Your task to perform on an android device: open a bookmark in the chrome app Image 0: 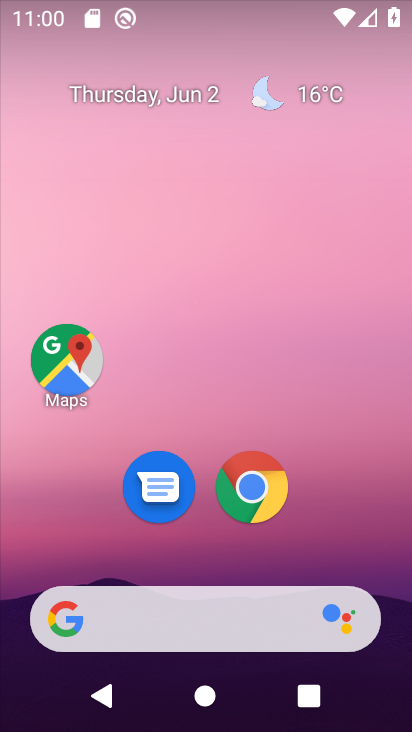
Step 0: click (258, 489)
Your task to perform on an android device: open a bookmark in the chrome app Image 1: 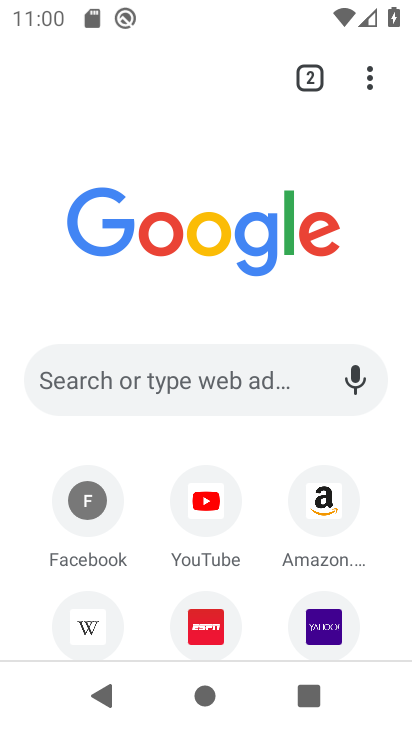
Step 1: click (370, 80)
Your task to perform on an android device: open a bookmark in the chrome app Image 2: 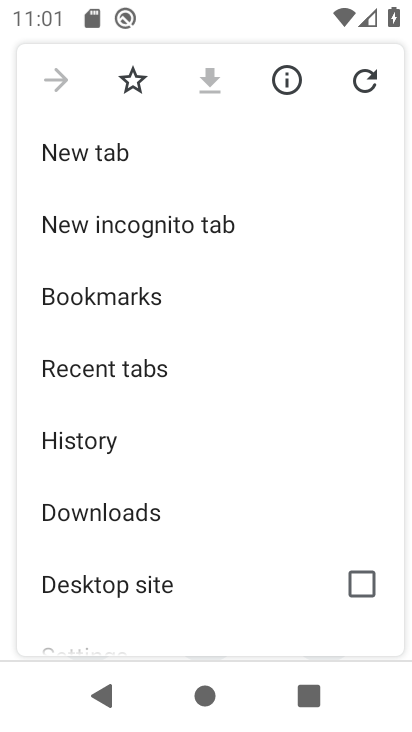
Step 2: click (126, 301)
Your task to perform on an android device: open a bookmark in the chrome app Image 3: 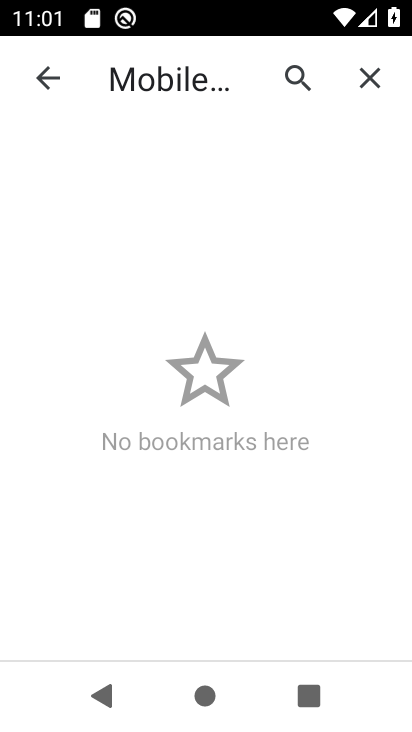
Step 3: task complete